Your task to perform on an android device: Search for pizza restaurants on Maps Image 0: 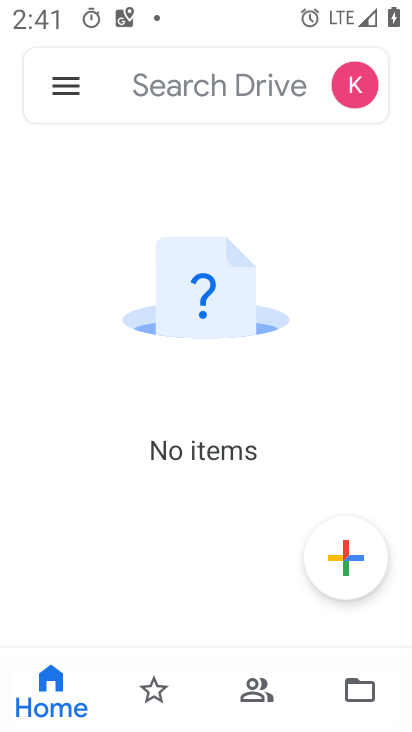
Step 0: press home button
Your task to perform on an android device: Search for pizza restaurants on Maps Image 1: 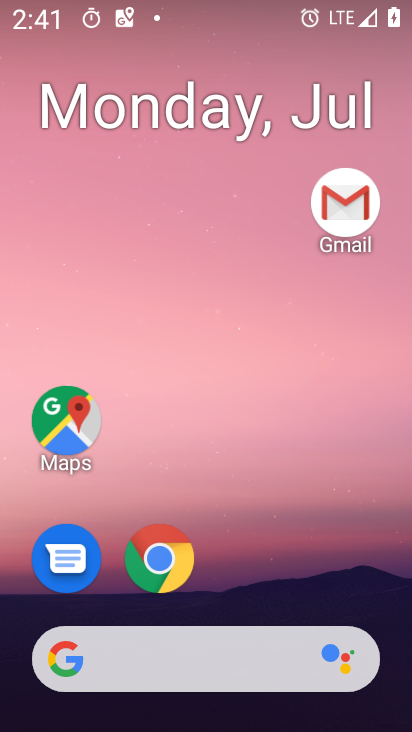
Step 1: drag from (315, 524) to (357, 68)
Your task to perform on an android device: Search for pizza restaurants on Maps Image 2: 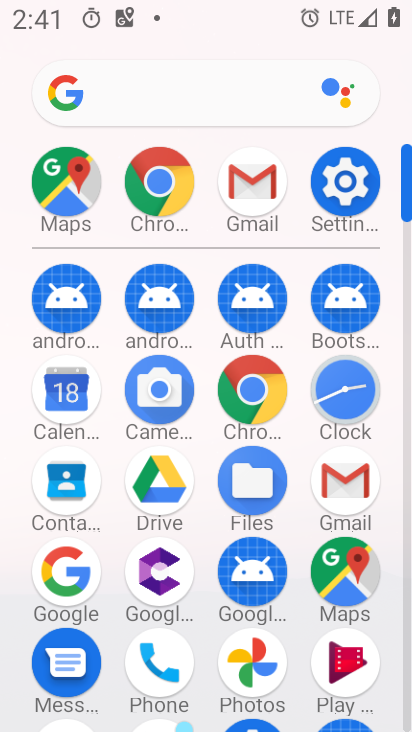
Step 2: click (337, 573)
Your task to perform on an android device: Search for pizza restaurants on Maps Image 3: 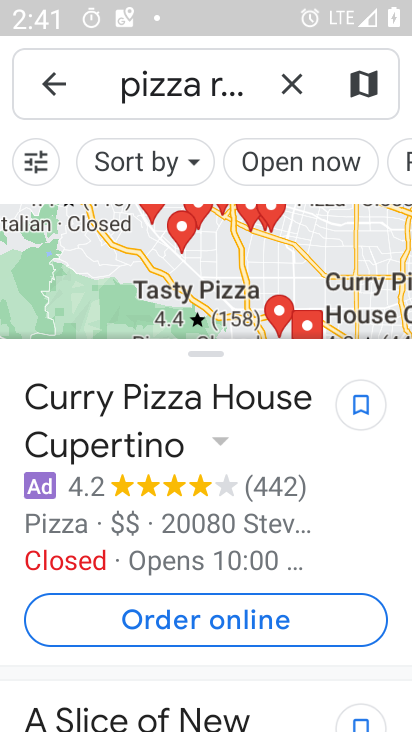
Step 3: task complete